Your task to perform on an android device: set the timer Image 0: 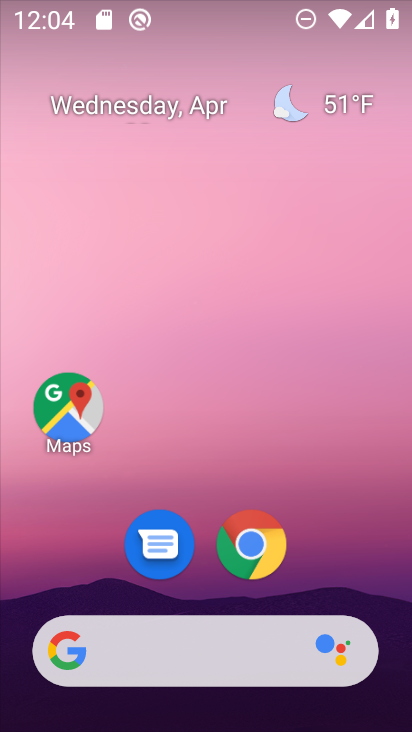
Step 0: drag from (333, 564) to (235, 129)
Your task to perform on an android device: set the timer Image 1: 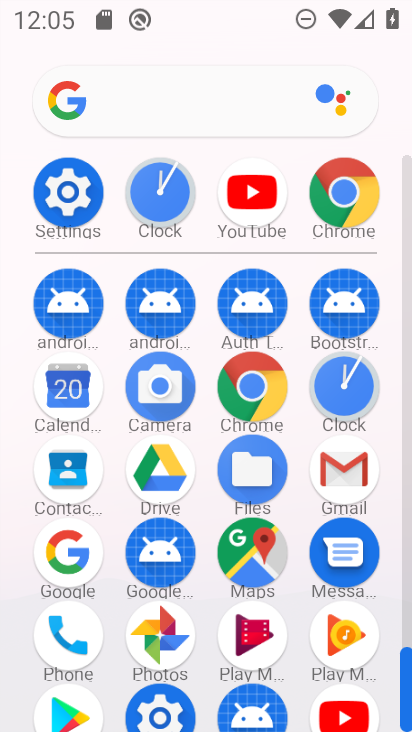
Step 1: click (355, 390)
Your task to perform on an android device: set the timer Image 2: 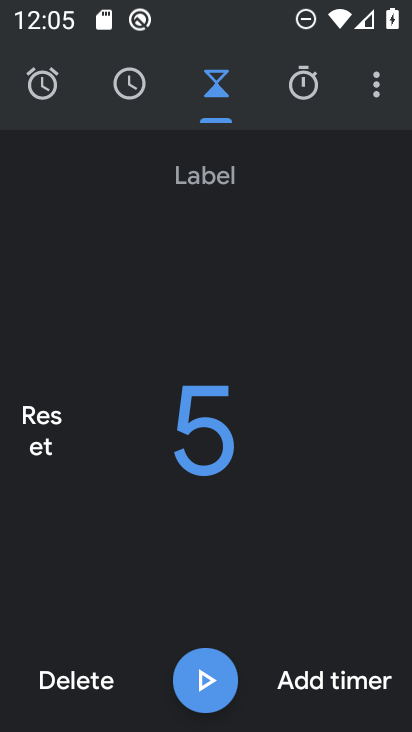
Step 2: click (310, 687)
Your task to perform on an android device: set the timer Image 3: 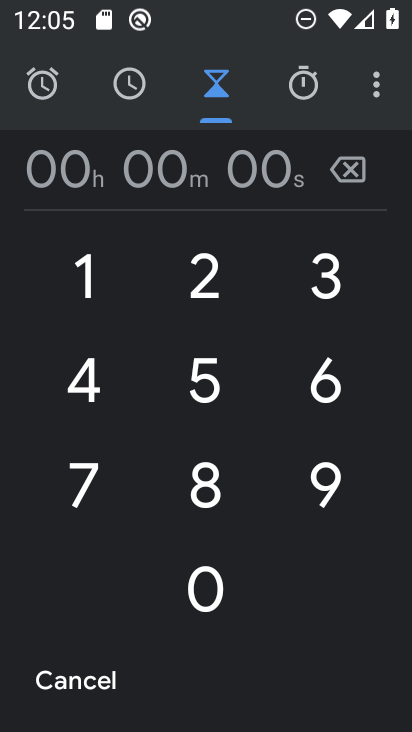
Step 3: click (209, 381)
Your task to perform on an android device: set the timer Image 4: 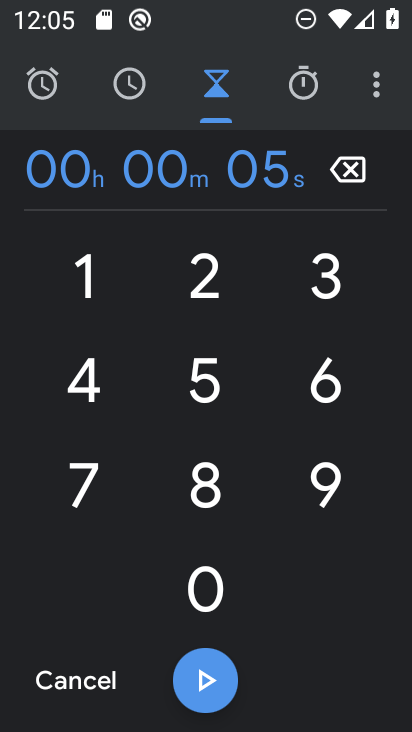
Step 4: click (221, 682)
Your task to perform on an android device: set the timer Image 5: 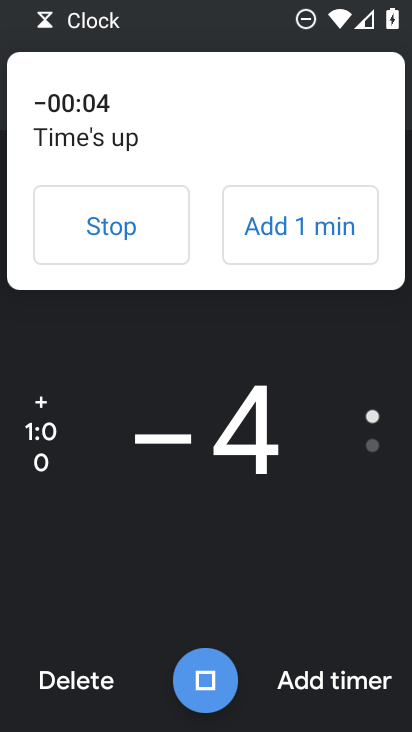
Step 5: task complete